Your task to perform on an android device: toggle airplane mode Image 0: 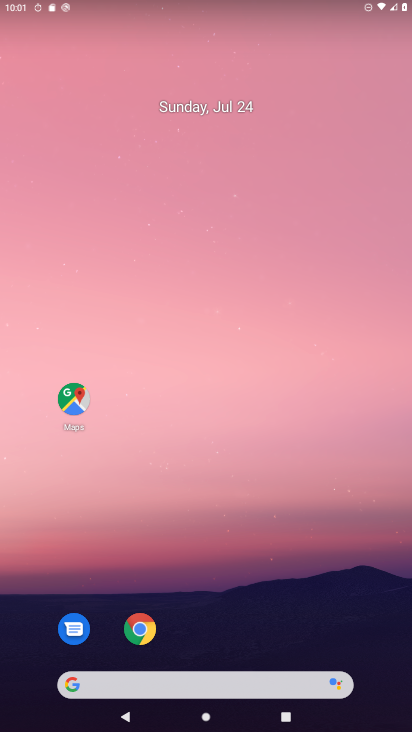
Step 0: drag from (245, 653) to (250, 140)
Your task to perform on an android device: toggle airplane mode Image 1: 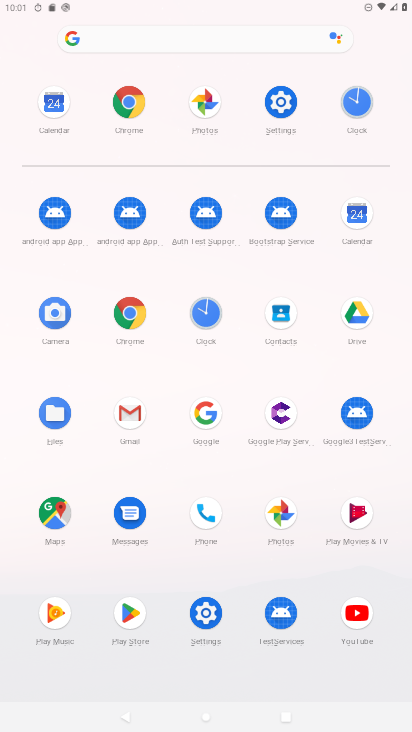
Step 1: click (276, 118)
Your task to perform on an android device: toggle airplane mode Image 2: 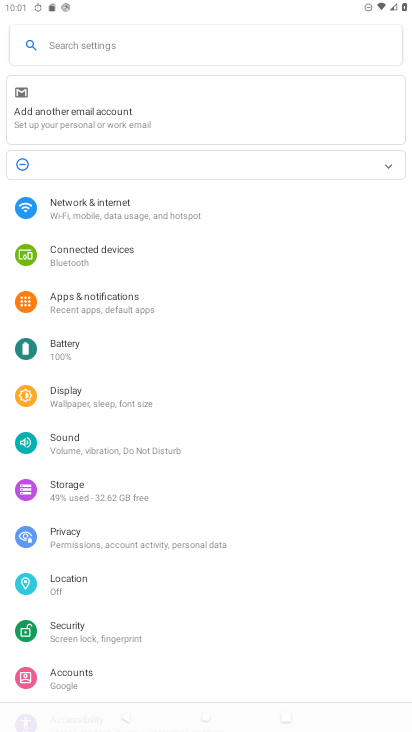
Step 2: click (134, 221)
Your task to perform on an android device: toggle airplane mode Image 3: 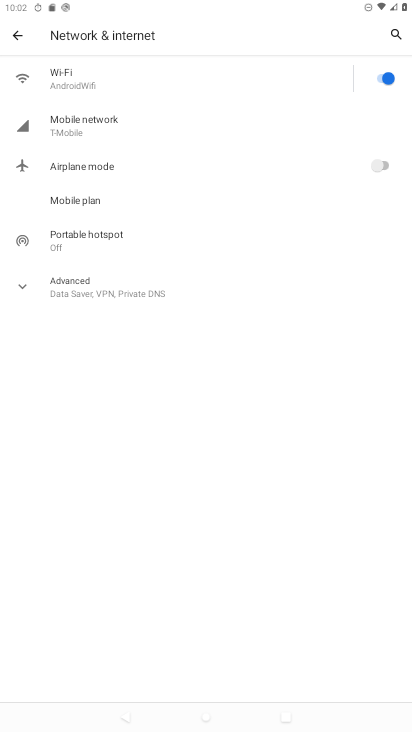
Step 3: click (381, 164)
Your task to perform on an android device: toggle airplane mode Image 4: 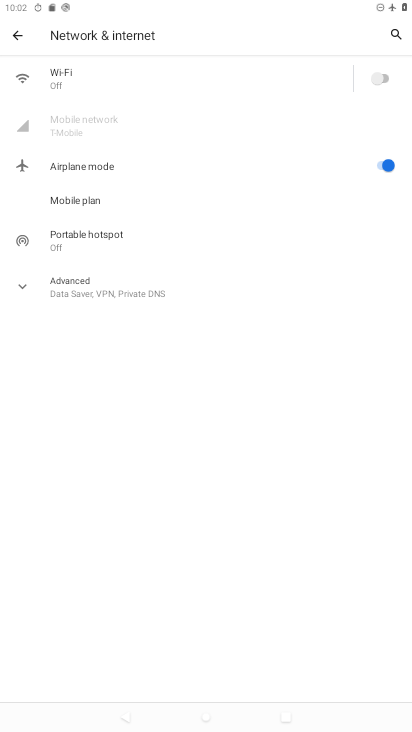
Step 4: task complete